Your task to perform on an android device: Go to Amazon Image 0: 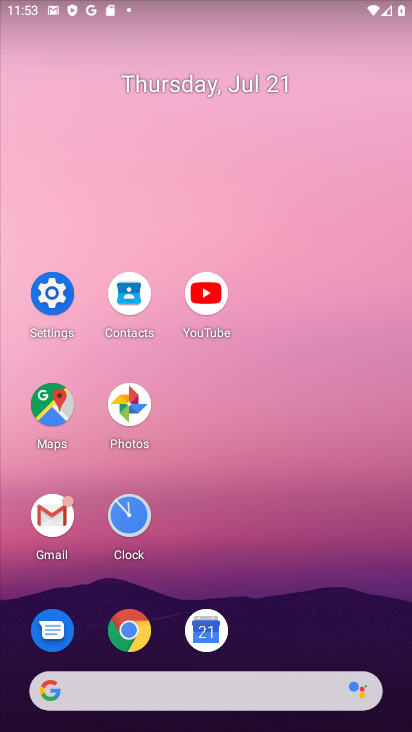
Step 0: click (131, 633)
Your task to perform on an android device: Go to Amazon Image 1: 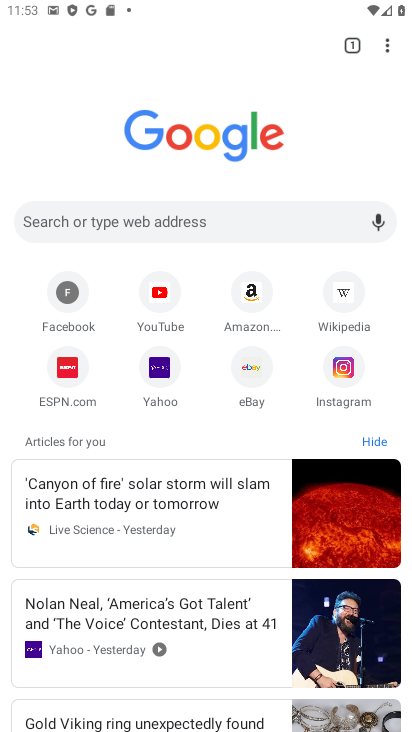
Step 1: click (246, 289)
Your task to perform on an android device: Go to Amazon Image 2: 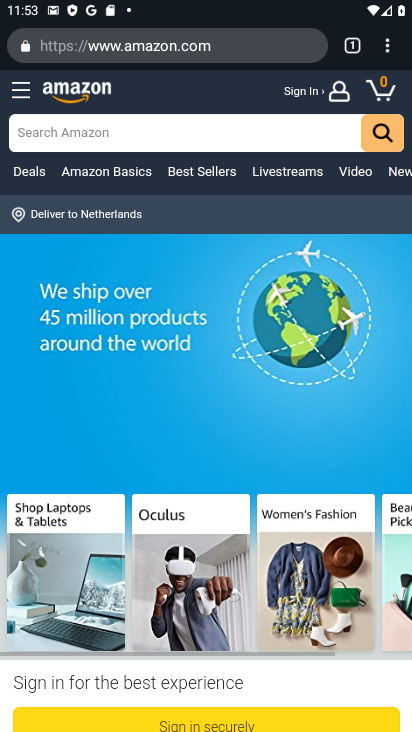
Step 2: task complete